Your task to perform on an android device: Go to accessibility settings Image 0: 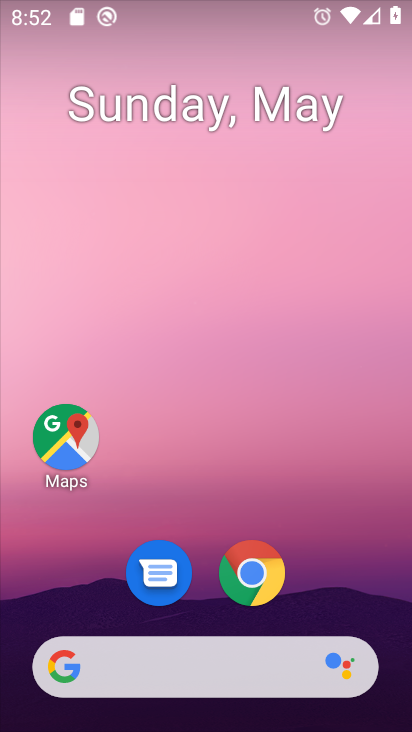
Step 0: drag from (208, 520) to (155, 18)
Your task to perform on an android device: Go to accessibility settings Image 1: 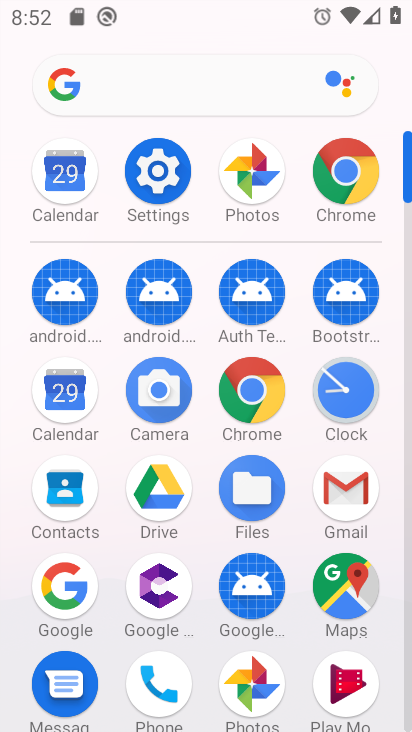
Step 1: click (160, 169)
Your task to perform on an android device: Go to accessibility settings Image 2: 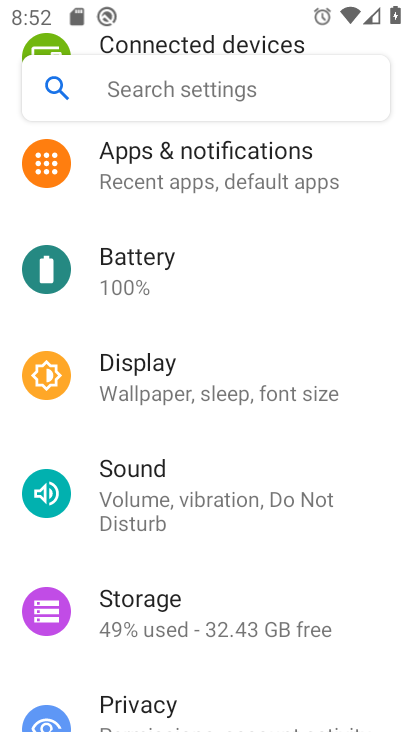
Step 2: drag from (240, 583) to (262, 60)
Your task to perform on an android device: Go to accessibility settings Image 3: 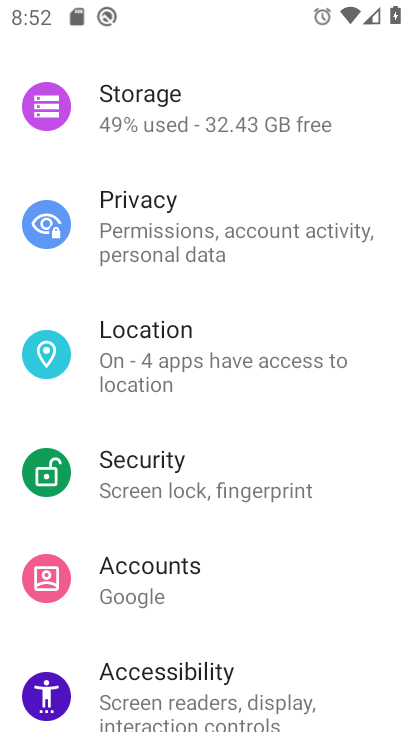
Step 3: click (213, 698)
Your task to perform on an android device: Go to accessibility settings Image 4: 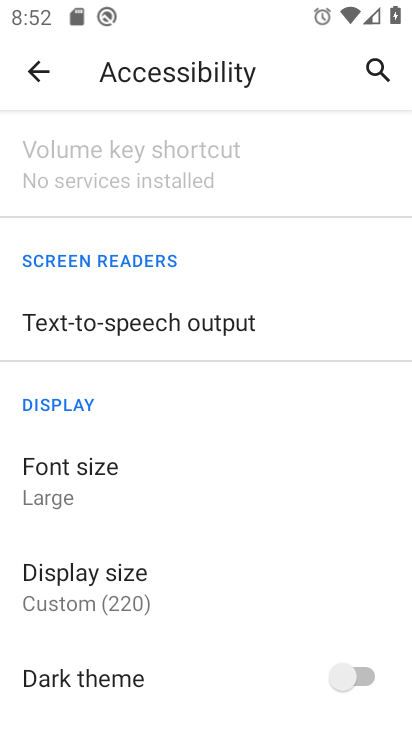
Step 4: task complete